Your task to perform on an android device: change timer sound Image 0: 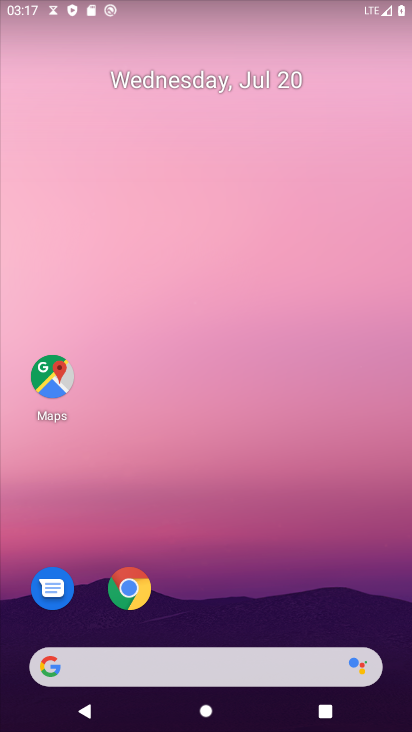
Step 0: drag from (197, 623) to (244, 181)
Your task to perform on an android device: change timer sound Image 1: 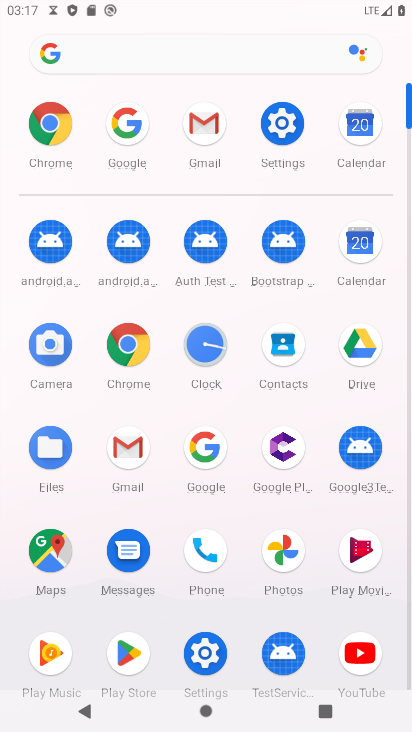
Step 1: click (210, 349)
Your task to perform on an android device: change timer sound Image 2: 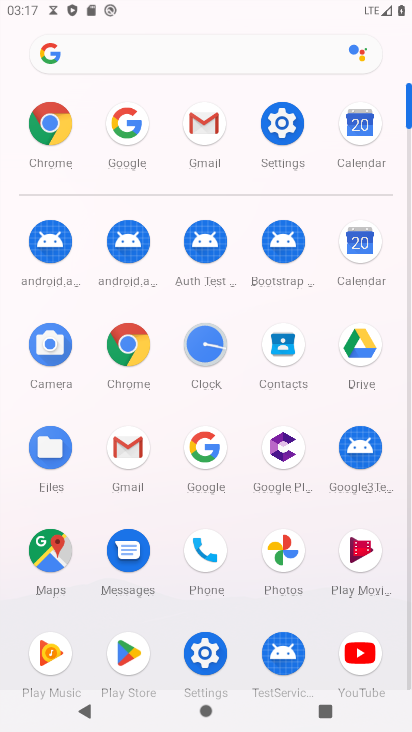
Step 2: click (215, 348)
Your task to perform on an android device: change timer sound Image 3: 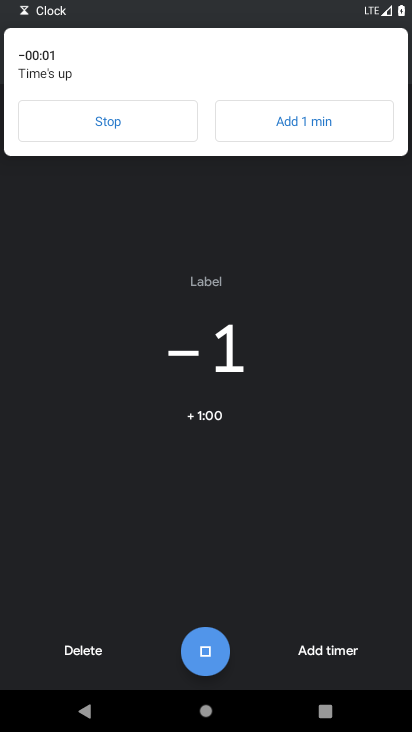
Step 3: click (80, 636)
Your task to perform on an android device: change timer sound Image 4: 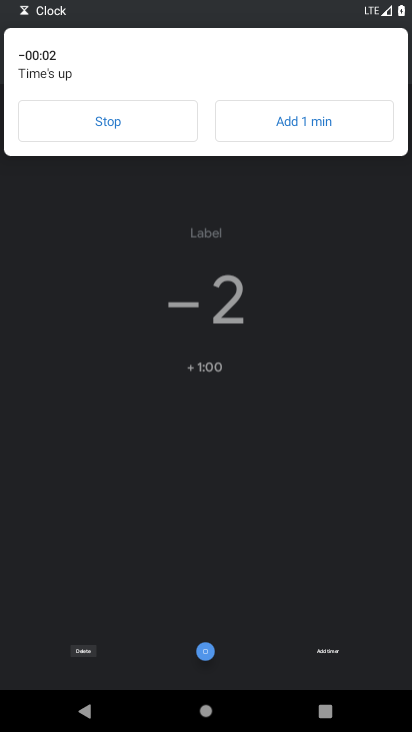
Step 4: click (85, 649)
Your task to perform on an android device: change timer sound Image 5: 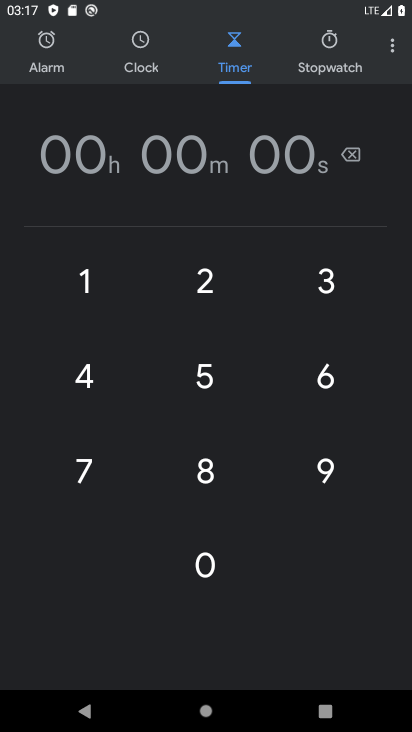
Step 5: click (205, 281)
Your task to perform on an android device: change timer sound Image 6: 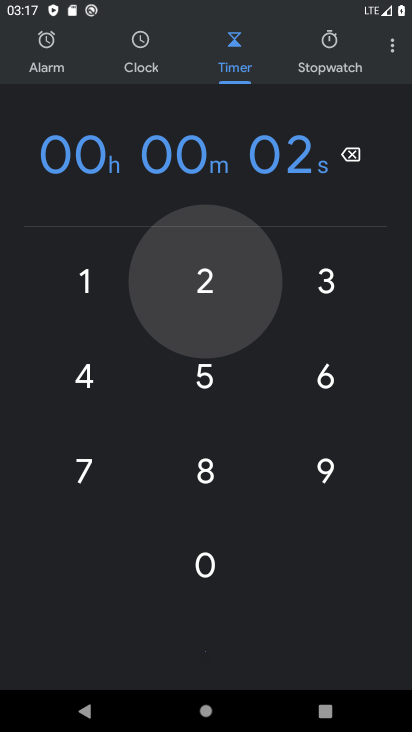
Step 6: click (205, 383)
Your task to perform on an android device: change timer sound Image 7: 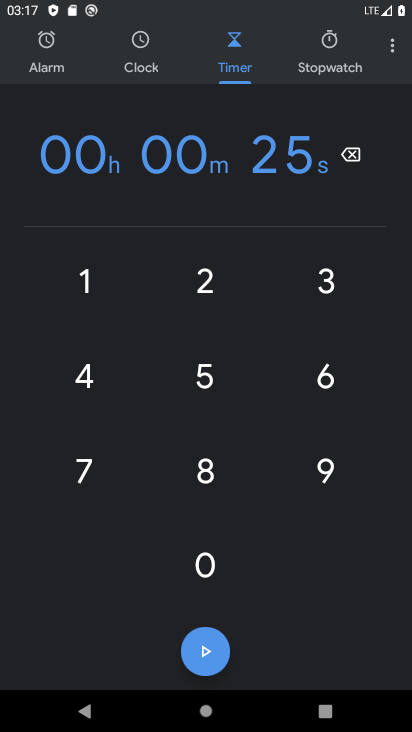
Step 7: click (198, 651)
Your task to perform on an android device: change timer sound Image 8: 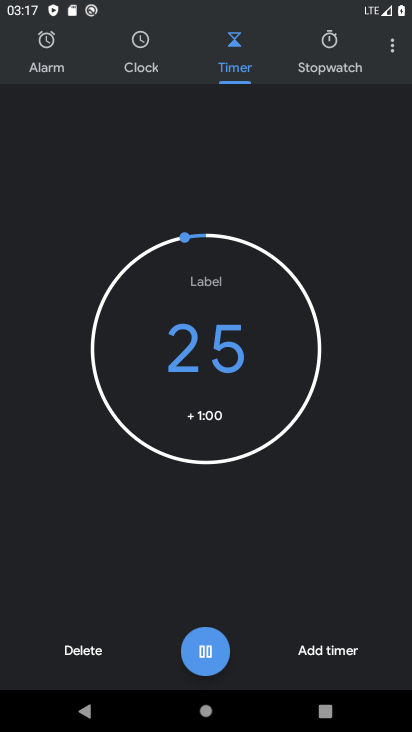
Step 8: task complete